Your task to perform on an android device: Show the shopping cart on target. Image 0: 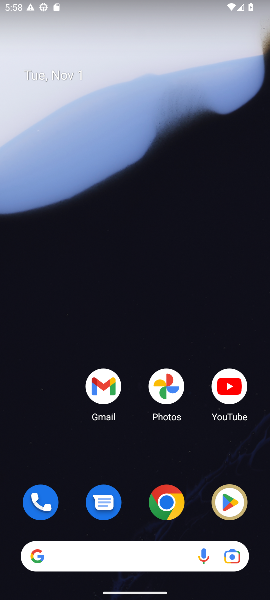
Step 0: click (124, 554)
Your task to perform on an android device: Show the shopping cart on target. Image 1: 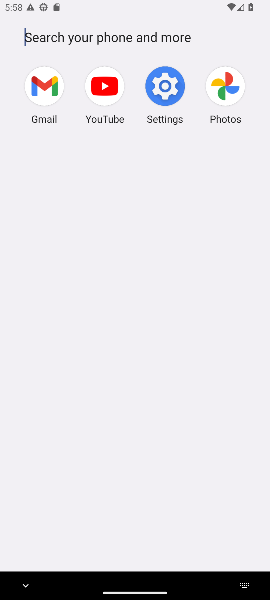
Step 1: click (71, 33)
Your task to perform on an android device: Show the shopping cart on target. Image 2: 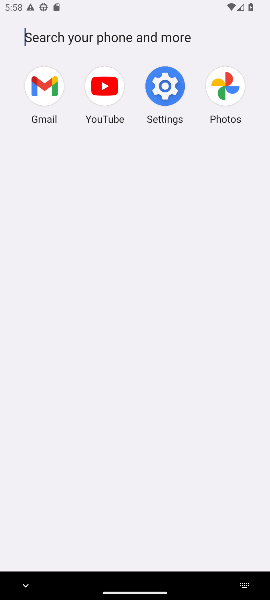
Step 2: type "google"
Your task to perform on an android device: Show the shopping cart on target. Image 3: 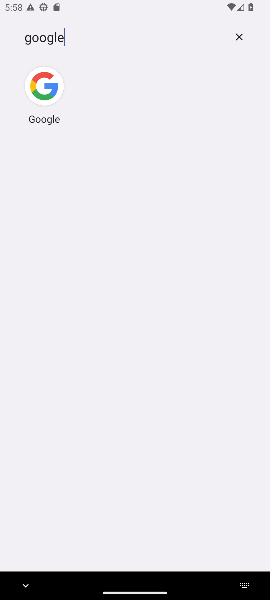
Step 3: click (45, 88)
Your task to perform on an android device: Show the shopping cart on target. Image 4: 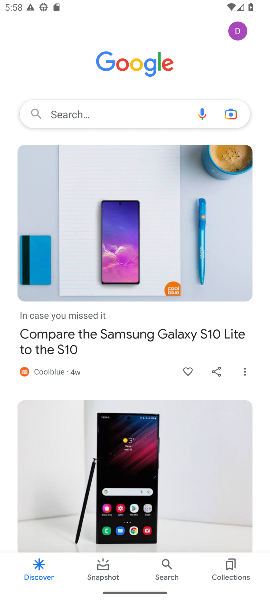
Step 4: click (71, 111)
Your task to perform on an android device: Show the shopping cart on target. Image 5: 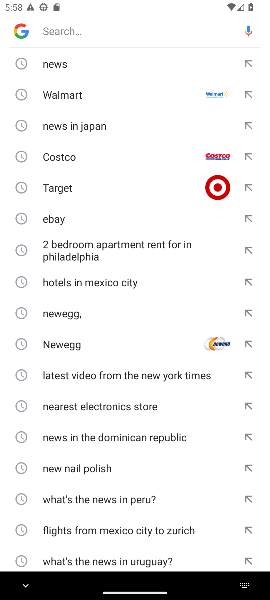
Step 5: click (64, 187)
Your task to perform on an android device: Show the shopping cart on target. Image 6: 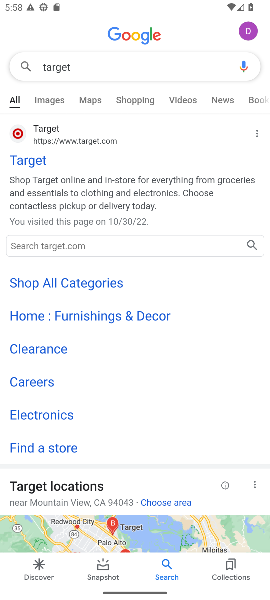
Step 6: click (27, 162)
Your task to perform on an android device: Show the shopping cart on target. Image 7: 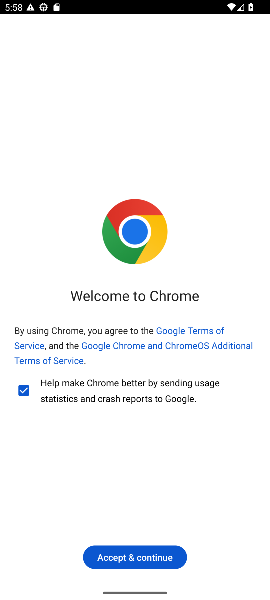
Step 7: click (141, 555)
Your task to perform on an android device: Show the shopping cart on target. Image 8: 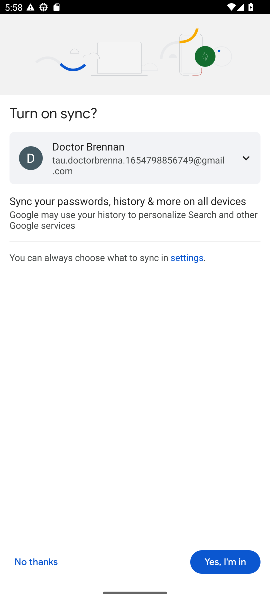
Step 8: click (215, 562)
Your task to perform on an android device: Show the shopping cart on target. Image 9: 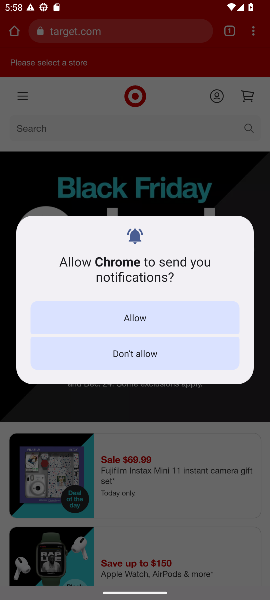
Step 9: click (133, 307)
Your task to perform on an android device: Show the shopping cart on target. Image 10: 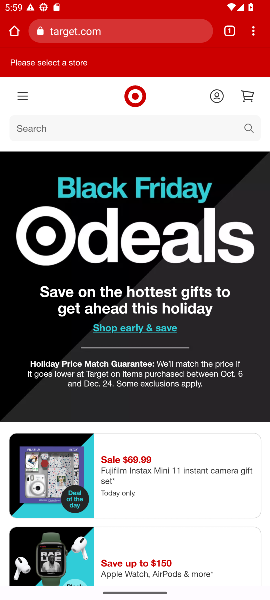
Step 10: task complete